Your task to perform on an android device: Check the news Image 0: 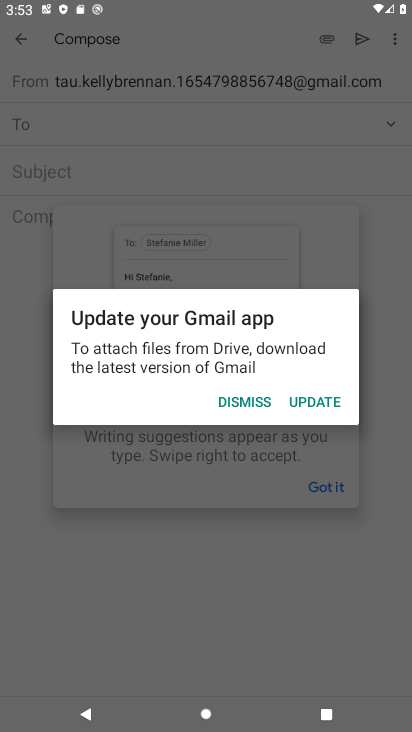
Step 0: press home button
Your task to perform on an android device: Check the news Image 1: 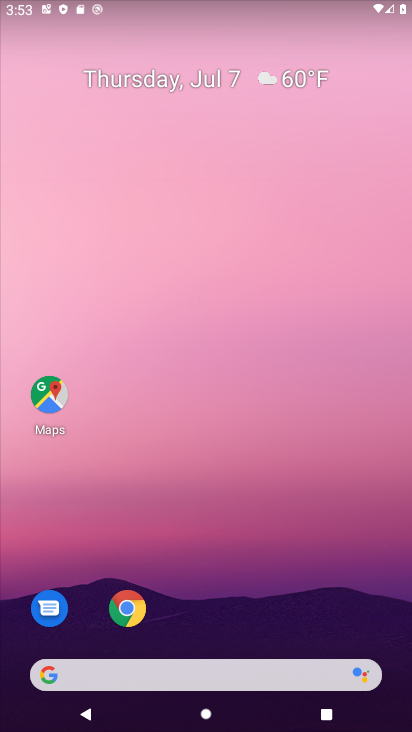
Step 1: drag from (168, 661) to (240, 35)
Your task to perform on an android device: Check the news Image 2: 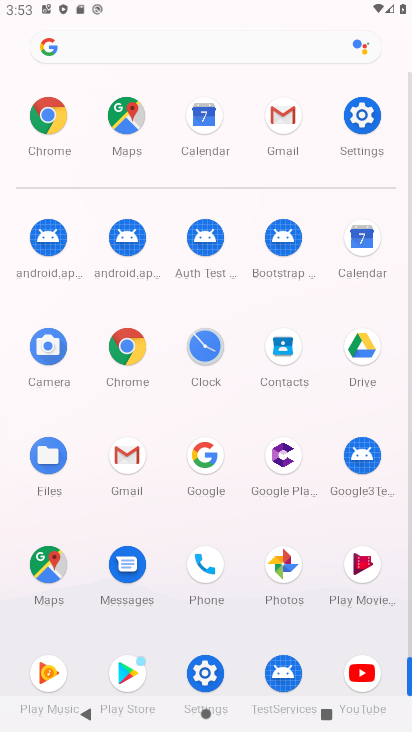
Step 2: click (197, 454)
Your task to perform on an android device: Check the news Image 3: 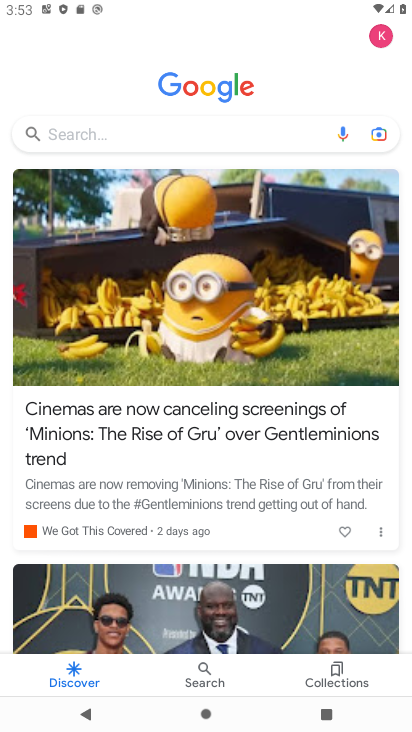
Step 3: task complete